Your task to perform on an android device: Open network settings Image 0: 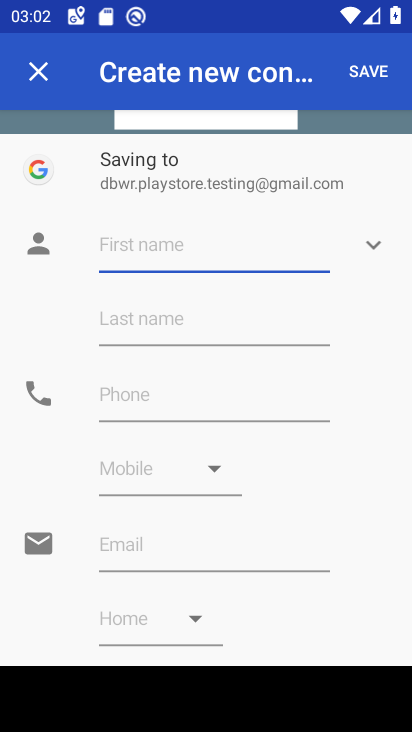
Step 0: press home button
Your task to perform on an android device: Open network settings Image 1: 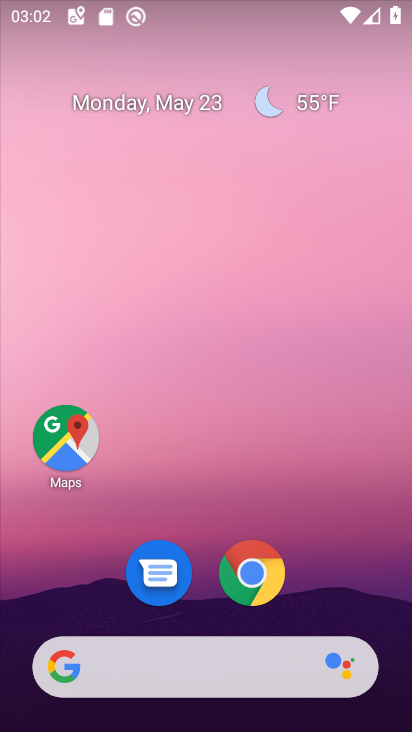
Step 1: drag from (334, 603) to (286, 145)
Your task to perform on an android device: Open network settings Image 2: 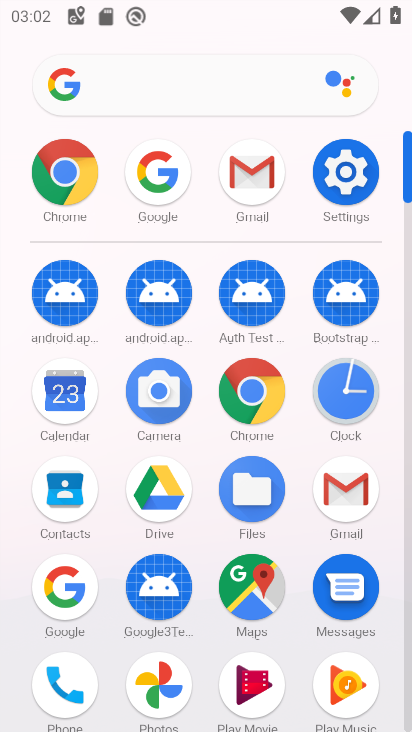
Step 2: click (348, 169)
Your task to perform on an android device: Open network settings Image 3: 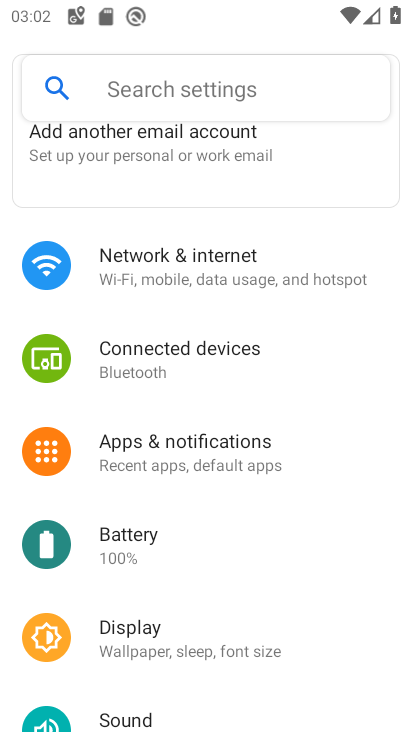
Step 3: click (231, 266)
Your task to perform on an android device: Open network settings Image 4: 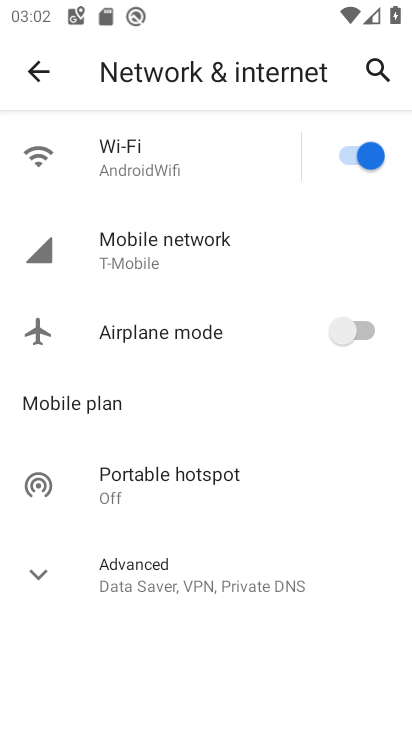
Step 4: task complete